Your task to perform on an android device: snooze an email in the gmail app Image 0: 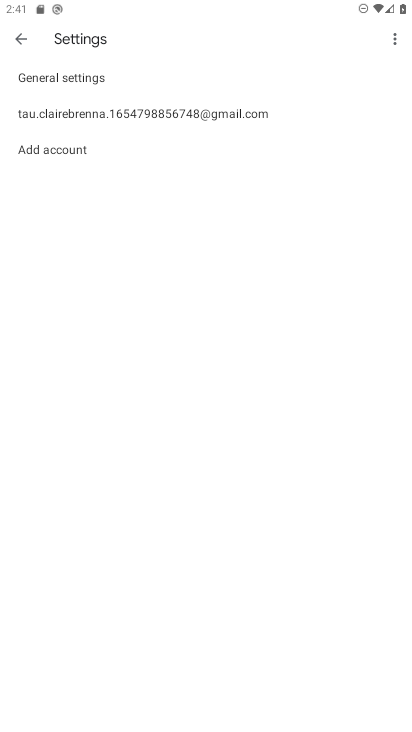
Step 0: click (11, 40)
Your task to perform on an android device: snooze an email in the gmail app Image 1: 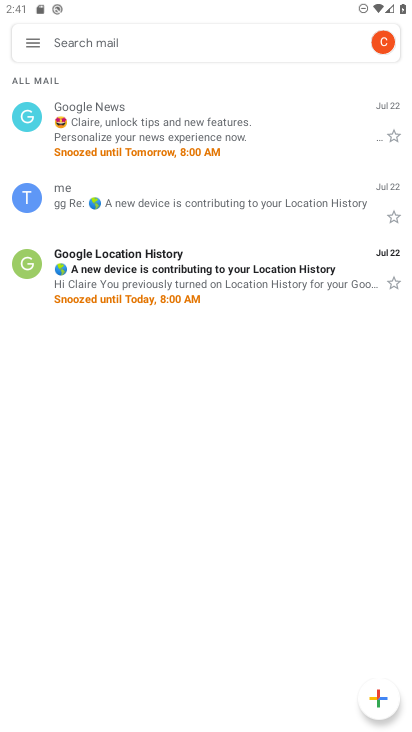
Step 1: click (25, 197)
Your task to perform on an android device: snooze an email in the gmail app Image 2: 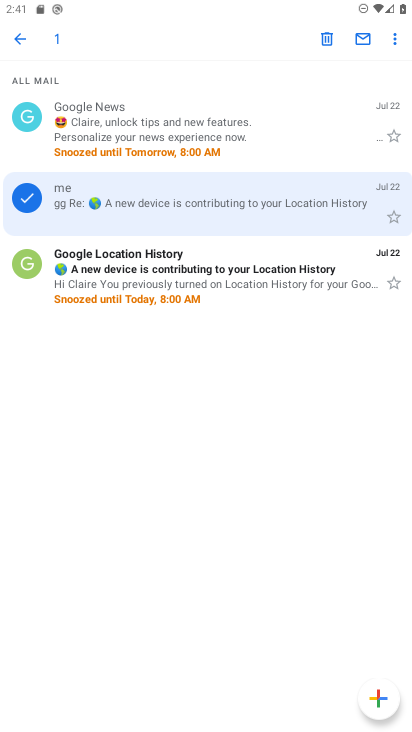
Step 2: click (396, 33)
Your task to perform on an android device: snooze an email in the gmail app Image 3: 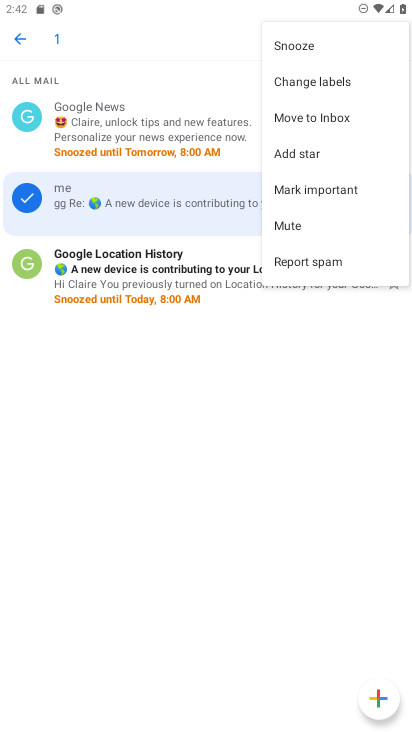
Step 3: click (307, 47)
Your task to perform on an android device: snooze an email in the gmail app Image 4: 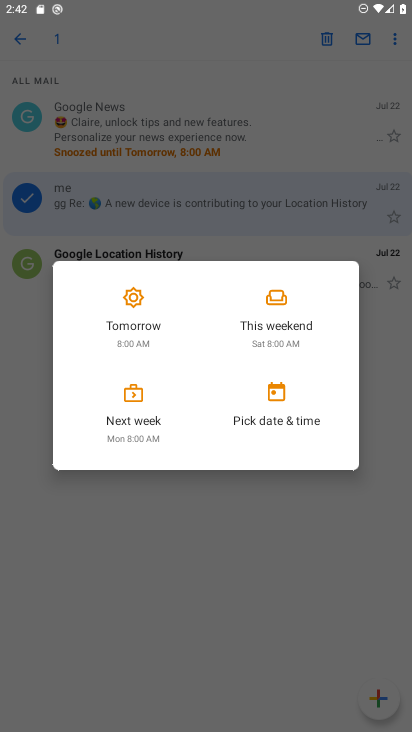
Step 4: click (151, 322)
Your task to perform on an android device: snooze an email in the gmail app Image 5: 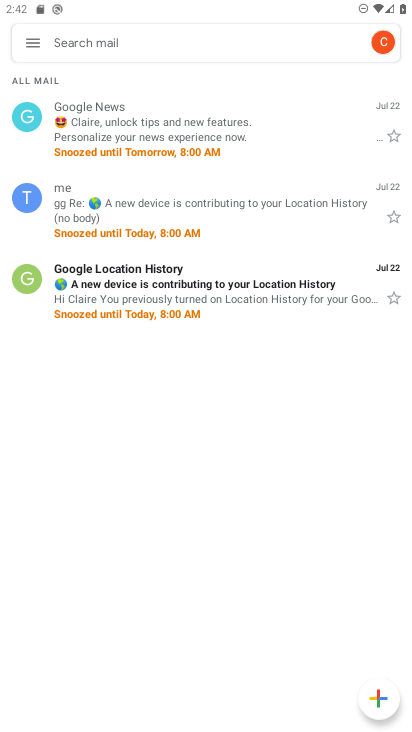
Step 5: task complete